Your task to perform on an android device: Open Google Chrome and click the shortcut for Amazon.com Image 0: 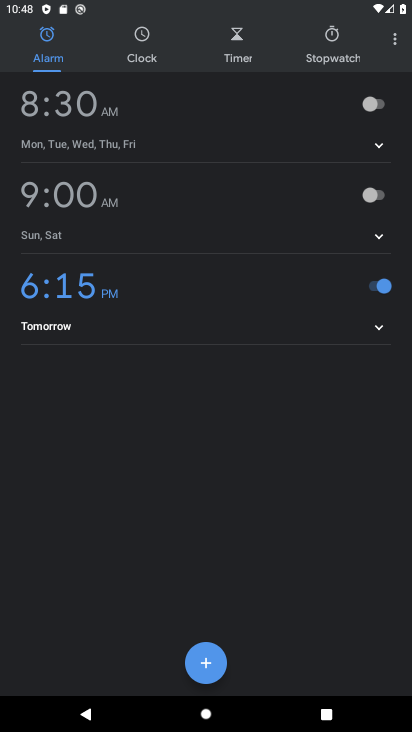
Step 0: press back button
Your task to perform on an android device: Open Google Chrome and click the shortcut for Amazon.com Image 1: 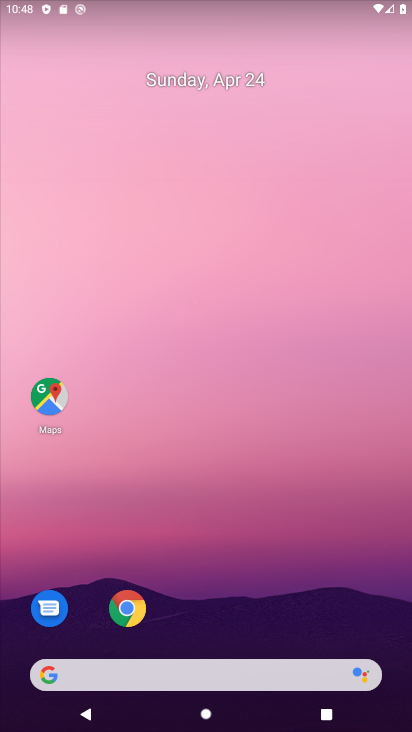
Step 1: drag from (267, 559) to (213, 55)
Your task to perform on an android device: Open Google Chrome and click the shortcut for Amazon.com Image 2: 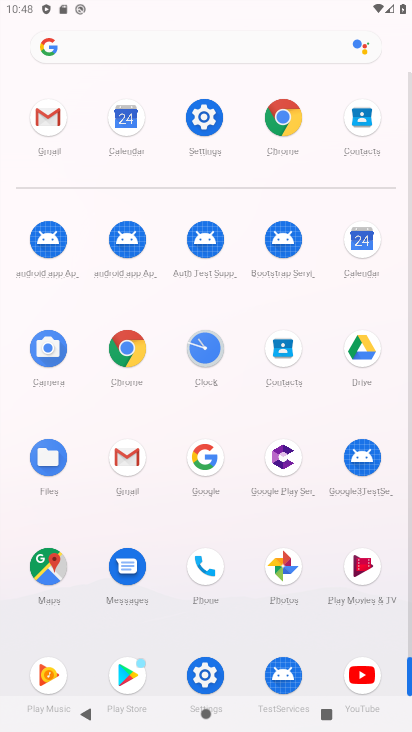
Step 2: click (123, 345)
Your task to perform on an android device: Open Google Chrome and click the shortcut for Amazon.com Image 3: 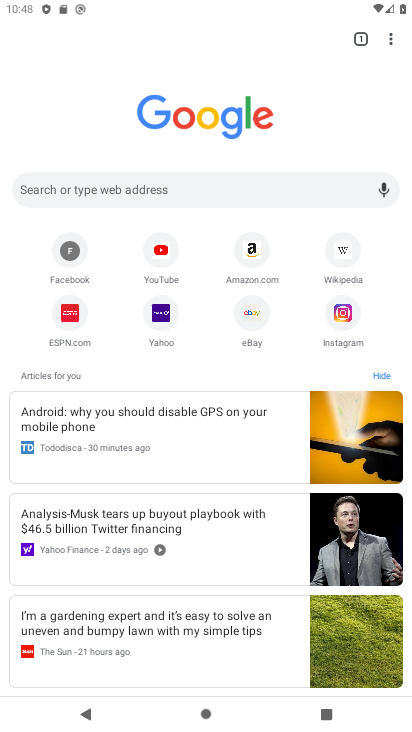
Step 3: click (241, 247)
Your task to perform on an android device: Open Google Chrome and click the shortcut for Amazon.com Image 4: 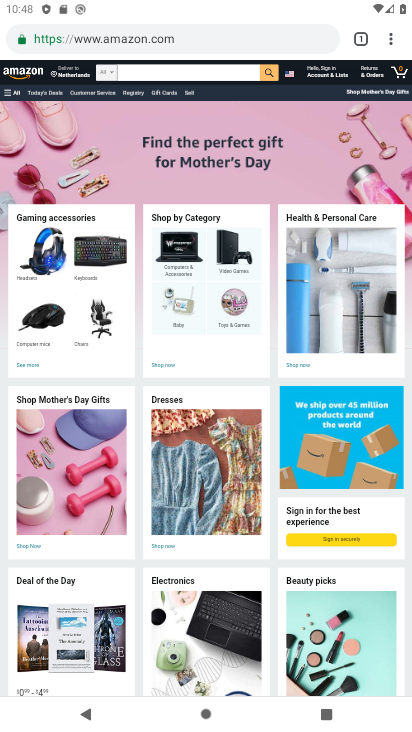
Step 4: drag from (390, 39) to (330, 396)
Your task to perform on an android device: Open Google Chrome and click the shortcut for Amazon.com Image 5: 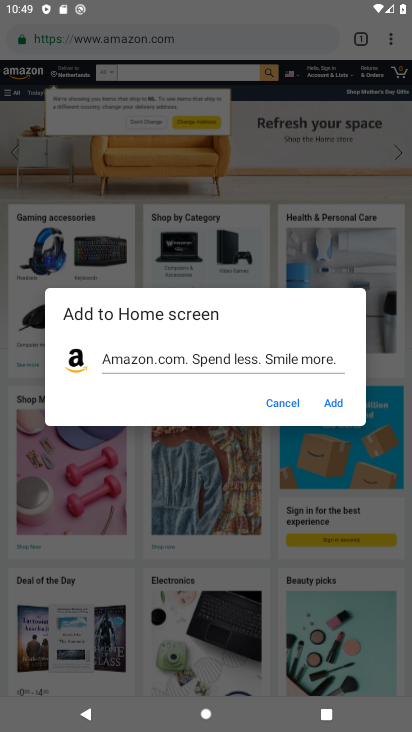
Step 5: click (328, 400)
Your task to perform on an android device: Open Google Chrome and click the shortcut for Amazon.com Image 6: 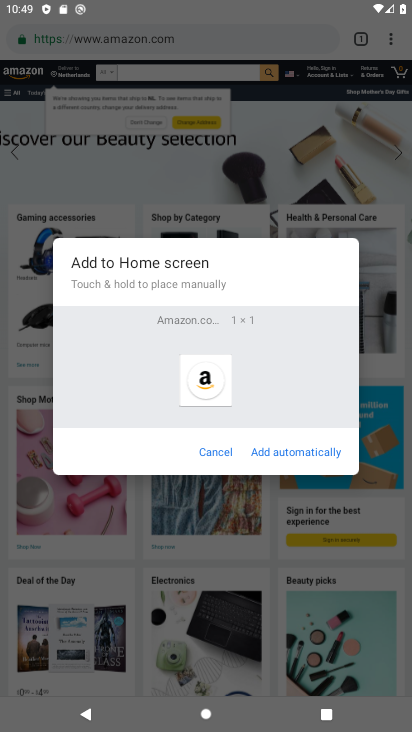
Step 6: click (311, 449)
Your task to perform on an android device: Open Google Chrome and click the shortcut for Amazon.com Image 7: 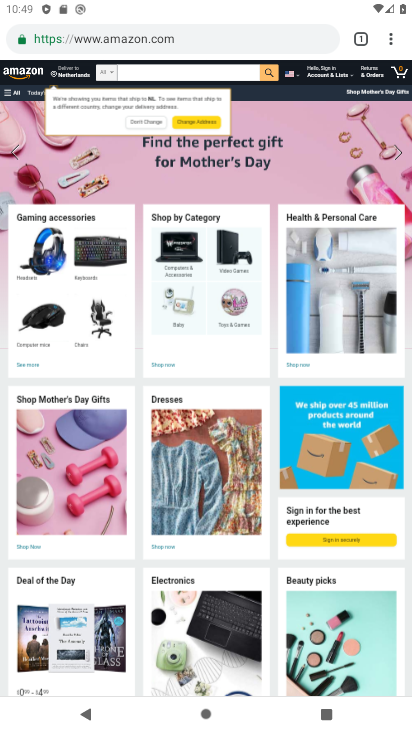
Step 7: task complete